Your task to perform on an android device: Search for hotels in Sydney Image 0: 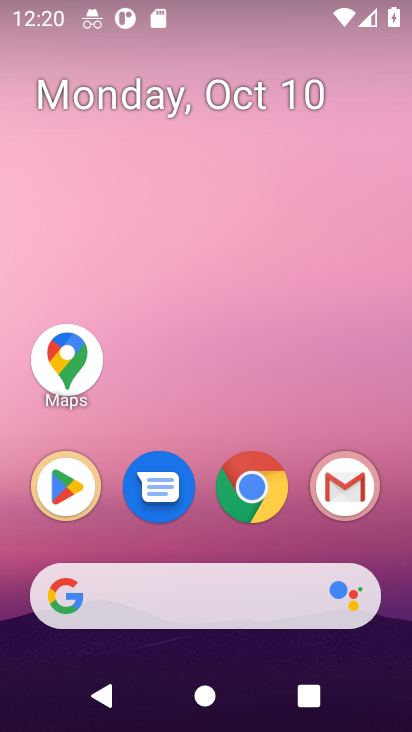
Step 0: click (246, 494)
Your task to perform on an android device: Search for hotels in Sydney Image 1: 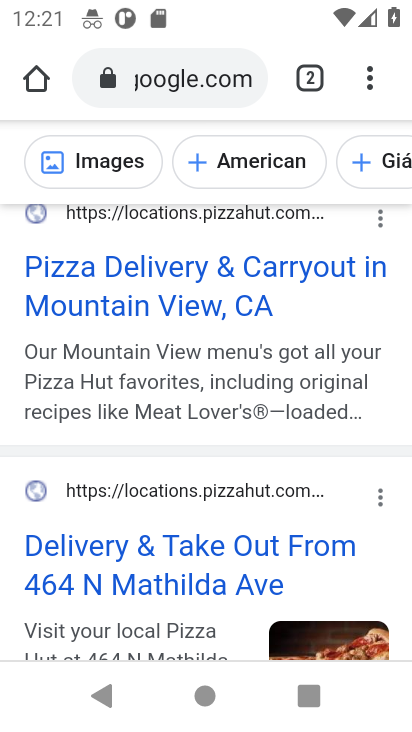
Step 1: click (207, 70)
Your task to perform on an android device: Search for hotels in Sydney Image 2: 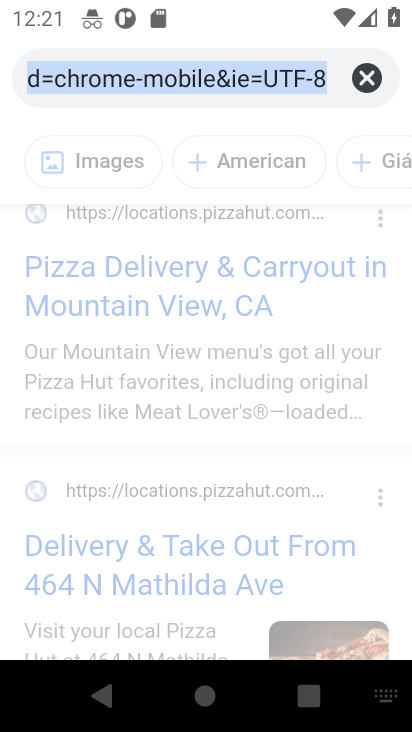
Step 2: type "hotels in Sydney"
Your task to perform on an android device: Search for hotels in Sydney Image 3: 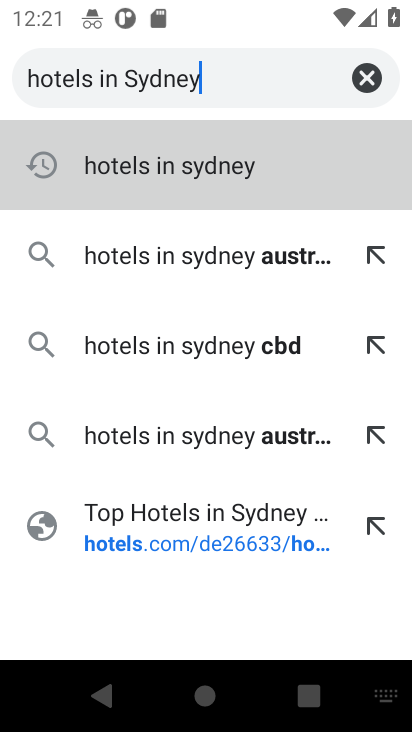
Step 3: type ""
Your task to perform on an android device: Search for hotels in Sydney Image 4: 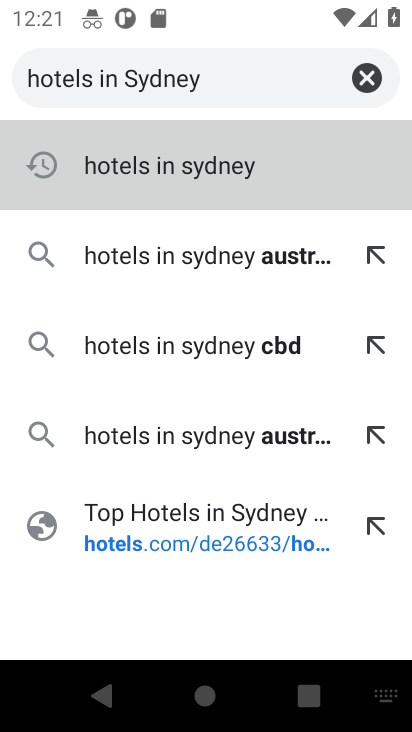
Step 4: press enter
Your task to perform on an android device: Search for hotels in Sydney Image 5: 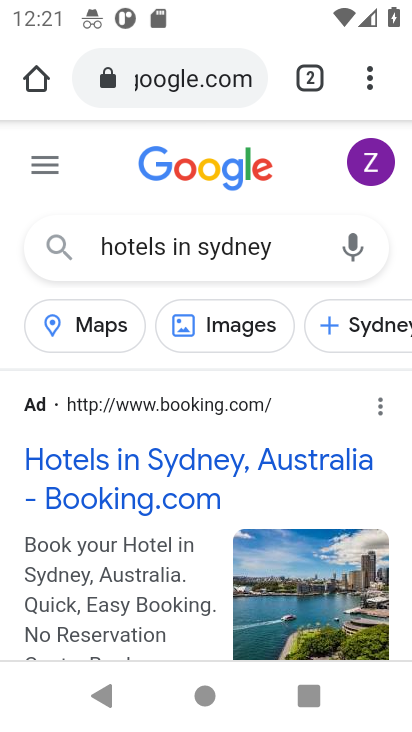
Step 5: press enter
Your task to perform on an android device: Search for hotels in Sydney Image 6: 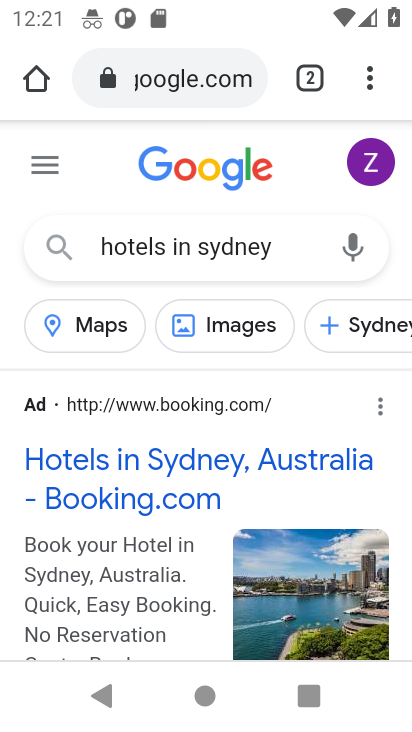
Step 6: drag from (160, 578) to (184, 265)
Your task to perform on an android device: Search for hotels in Sydney Image 7: 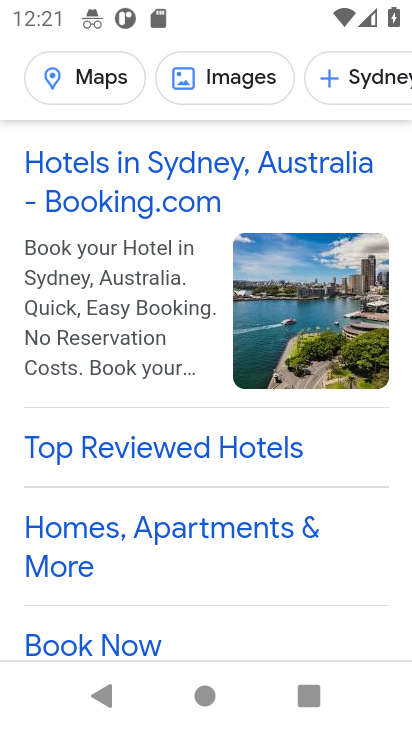
Step 7: click (157, 190)
Your task to perform on an android device: Search for hotels in Sydney Image 8: 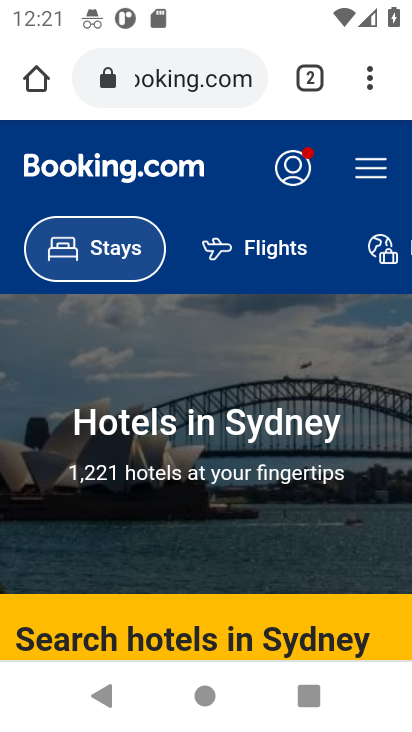
Step 8: task complete